Your task to perform on an android device: Open Google Chrome Image 0: 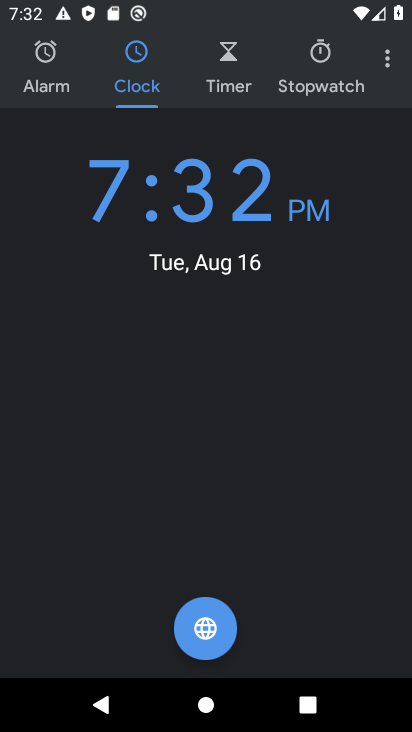
Step 0: press home button
Your task to perform on an android device: Open Google Chrome Image 1: 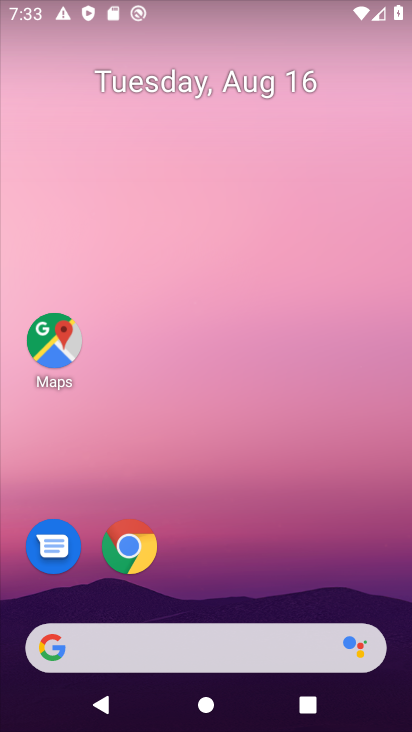
Step 1: click (128, 540)
Your task to perform on an android device: Open Google Chrome Image 2: 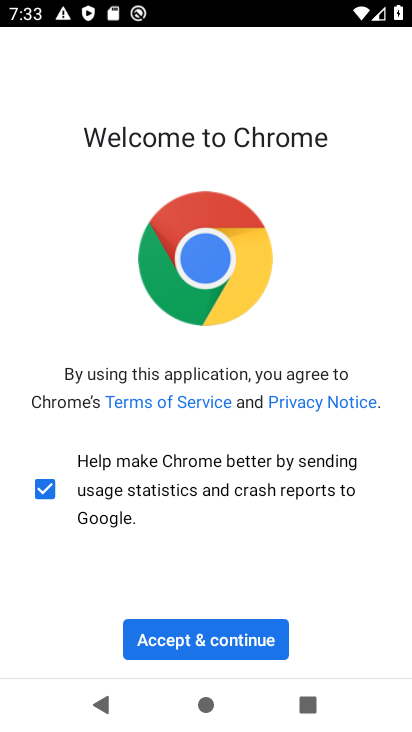
Step 2: click (255, 633)
Your task to perform on an android device: Open Google Chrome Image 3: 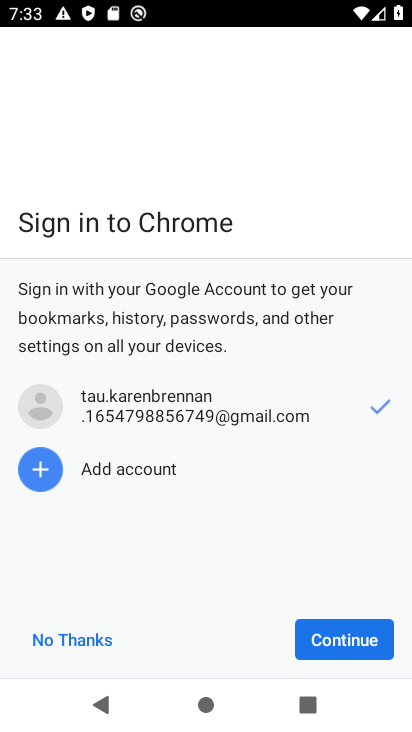
Step 3: click (334, 632)
Your task to perform on an android device: Open Google Chrome Image 4: 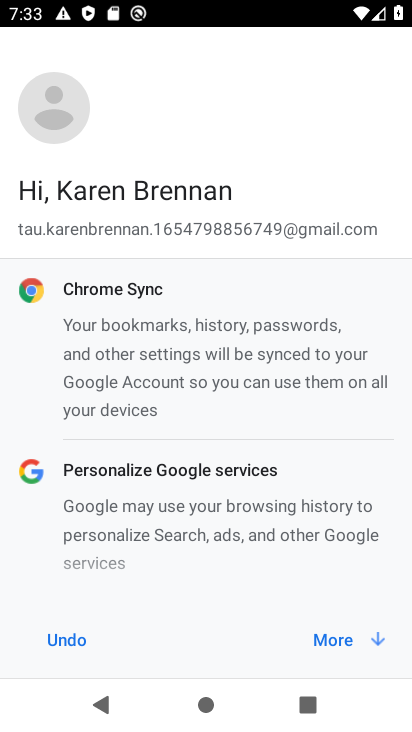
Step 4: click (335, 631)
Your task to perform on an android device: Open Google Chrome Image 5: 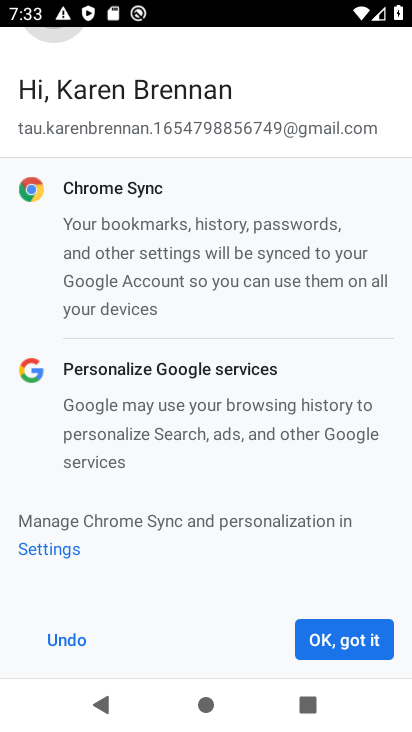
Step 5: click (339, 645)
Your task to perform on an android device: Open Google Chrome Image 6: 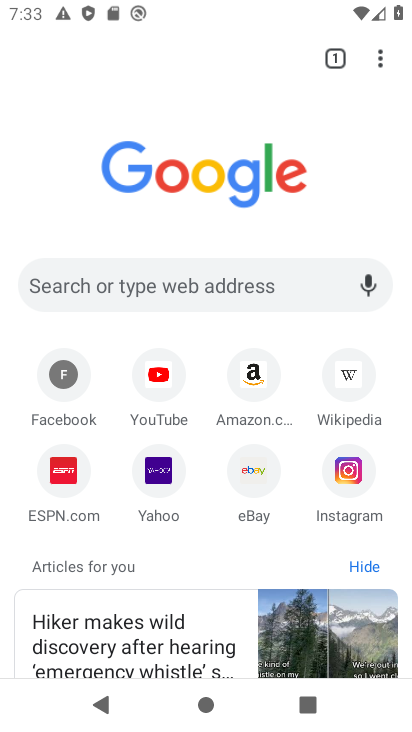
Step 6: task complete